Your task to perform on an android device: Go to display settings Image 0: 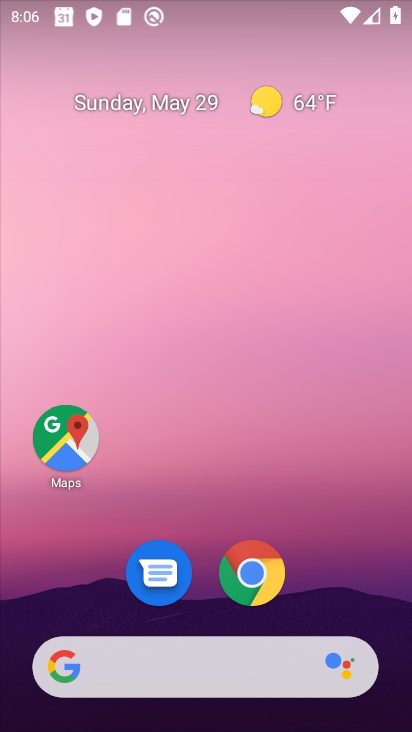
Step 0: drag from (81, 630) to (215, 83)
Your task to perform on an android device: Go to display settings Image 1: 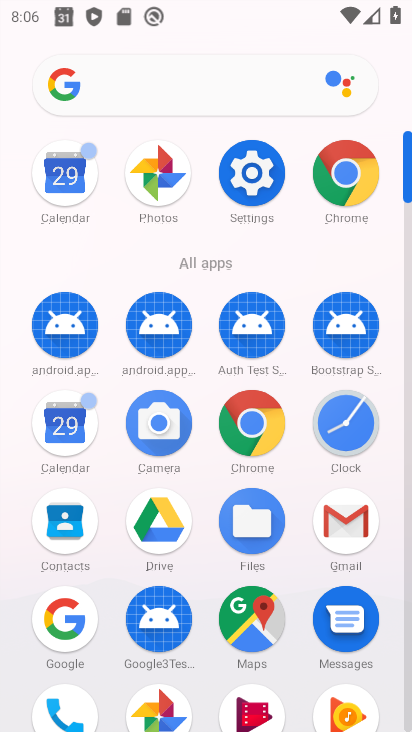
Step 1: drag from (132, 563) to (178, 298)
Your task to perform on an android device: Go to display settings Image 2: 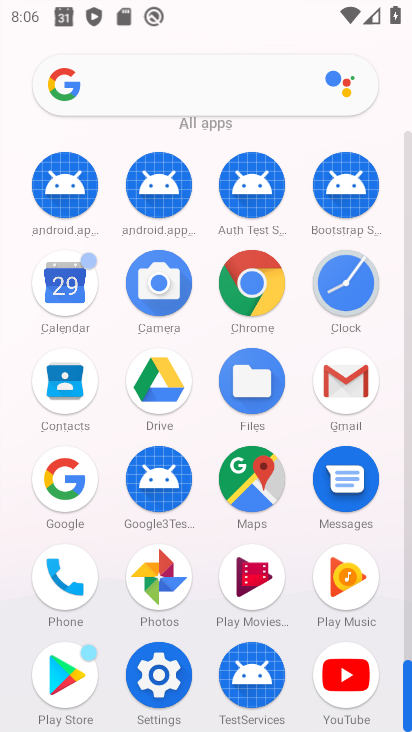
Step 2: click (174, 678)
Your task to perform on an android device: Go to display settings Image 3: 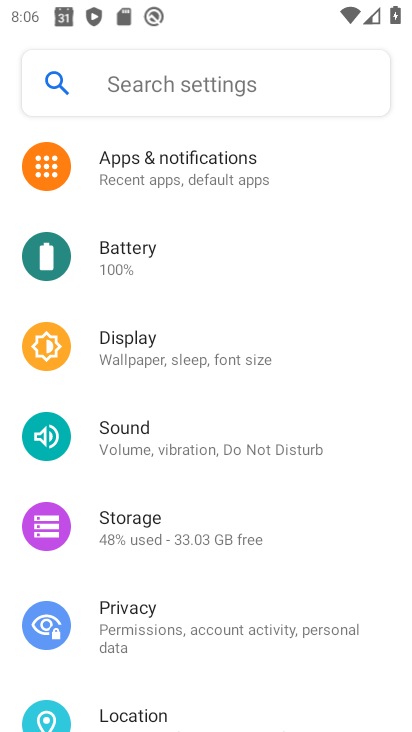
Step 3: click (189, 358)
Your task to perform on an android device: Go to display settings Image 4: 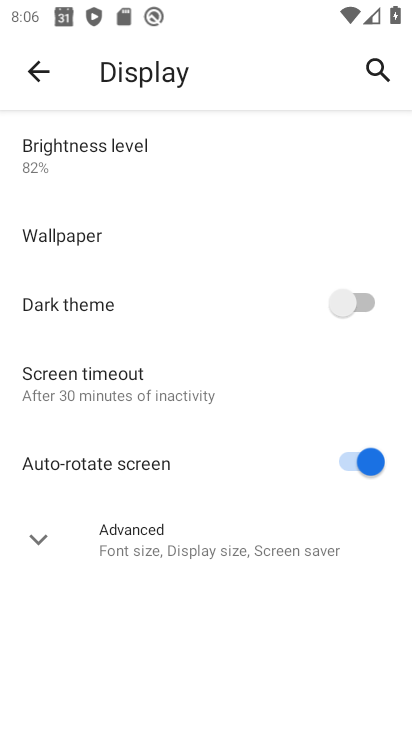
Step 4: task complete